Your task to perform on an android device: Go to display settings Image 0: 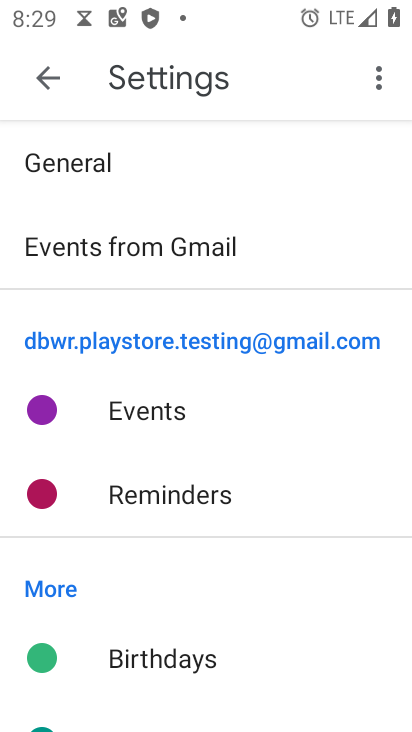
Step 0: press back button
Your task to perform on an android device: Go to display settings Image 1: 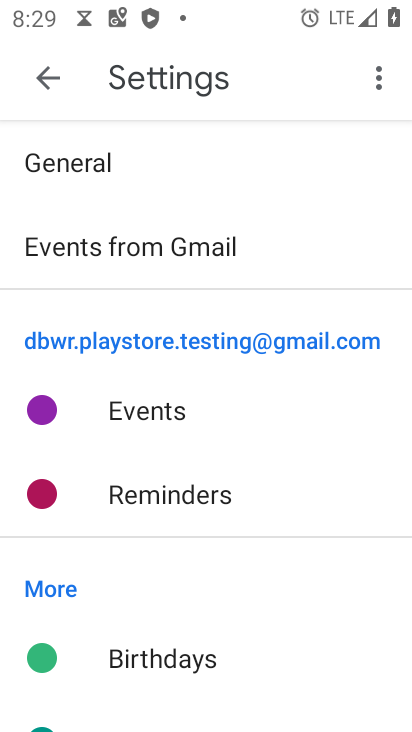
Step 1: press back button
Your task to perform on an android device: Go to display settings Image 2: 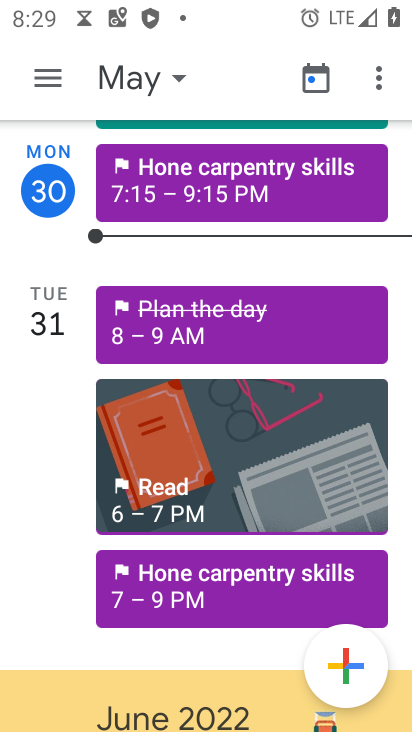
Step 2: click (173, 78)
Your task to perform on an android device: Go to display settings Image 3: 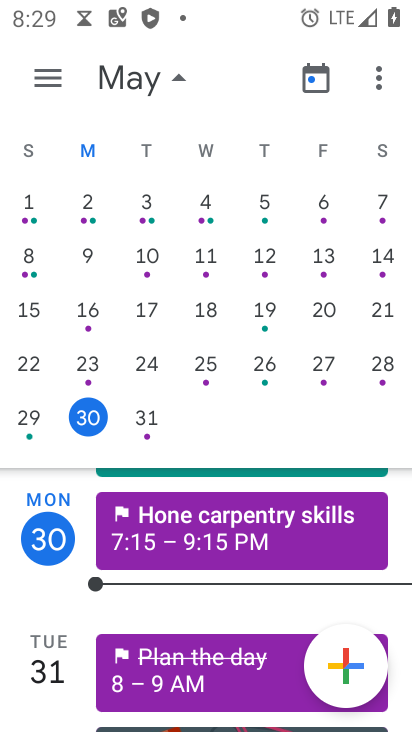
Step 3: press back button
Your task to perform on an android device: Go to display settings Image 4: 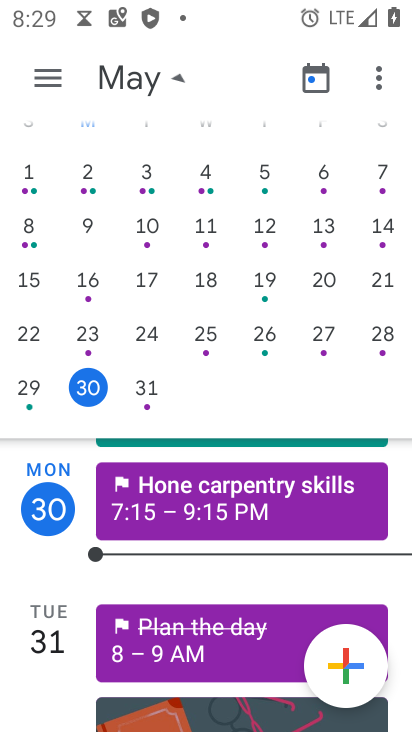
Step 4: press back button
Your task to perform on an android device: Go to display settings Image 5: 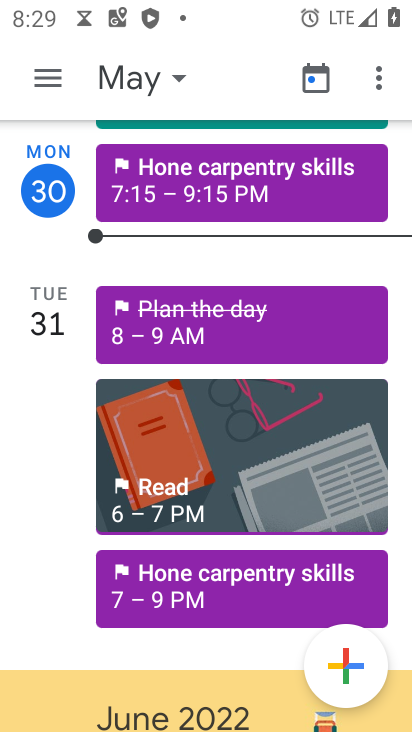
Step 5: press back button
Your task to perform on an android device: Go to display settings Image 6: 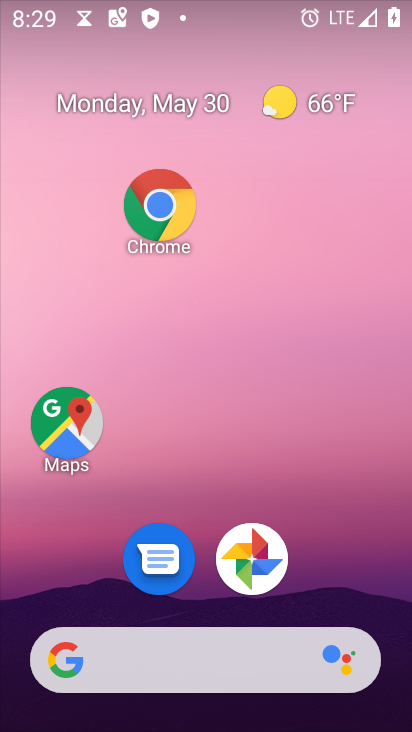
Step 6: drag from (268, 695) to (260, 85)
Your task to perform on an android device: Go to display settings Image 7: 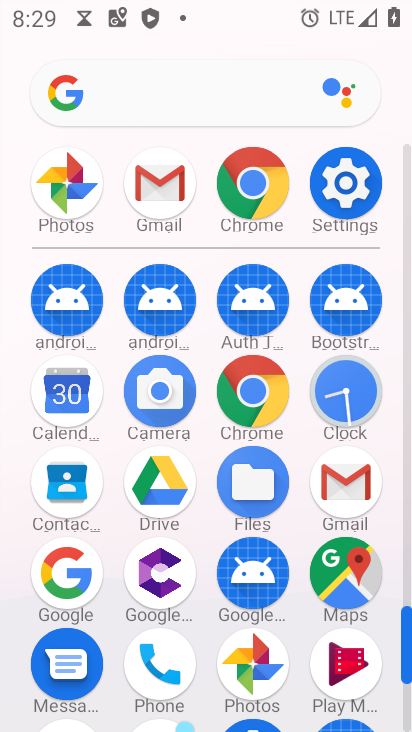
Step 7: click (359, 199)
Your task to perform on an android device: Go to display settings Image 8: 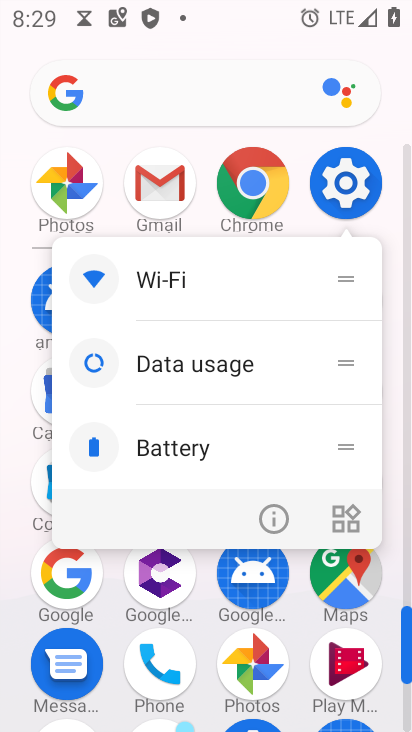
Step 8: click (360, 178)
Your task to perform on an android device: Go to display settings Image 9: 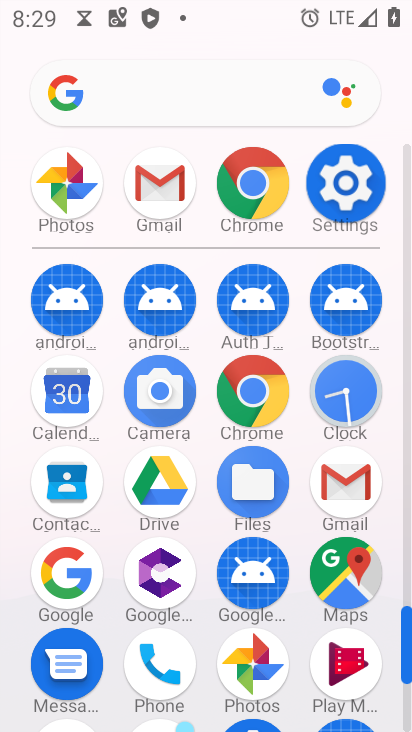
Step 9: click (353, 186)
Your task to perform on an android device: Go to display settings Image 10: 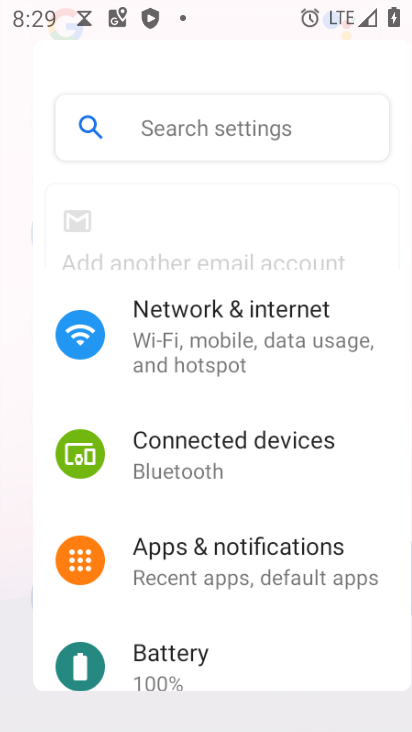
Step 10: click (350, 187)
Your task to perform on an android device: Go to display settings Image 11: 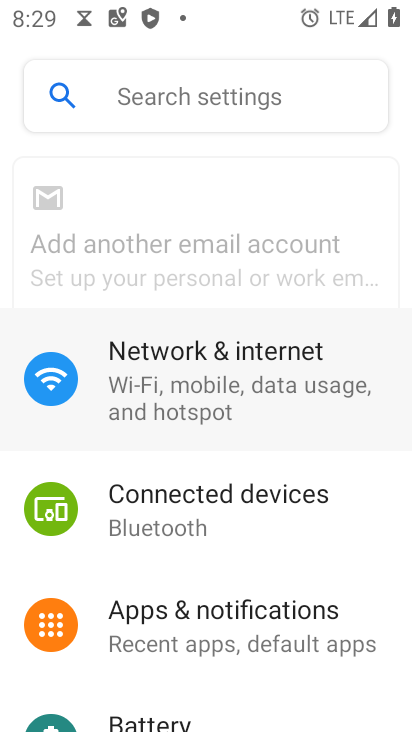
Step 11: click (350, 187)
Your task to perform on an android device: Go to display settings Image 12: 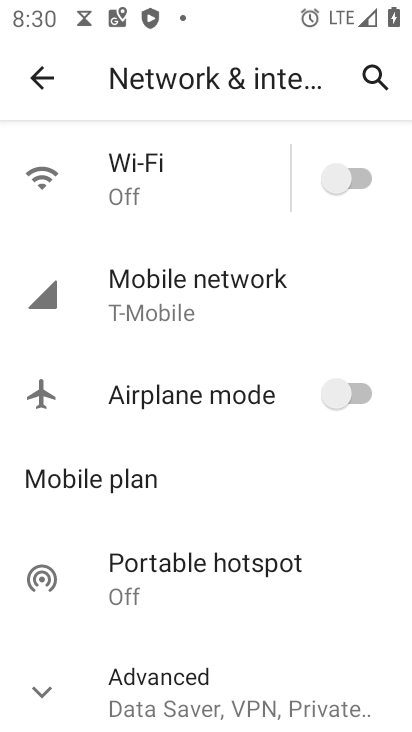
Step 12: press back button
Your task to perform on an android device: Go to display settings Image 13: 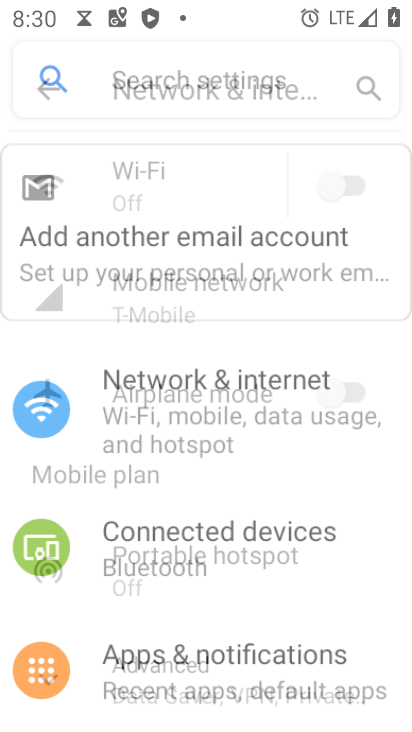
Step 13: press back button
Your task to perform on an android device: Go to display settings Image 14: 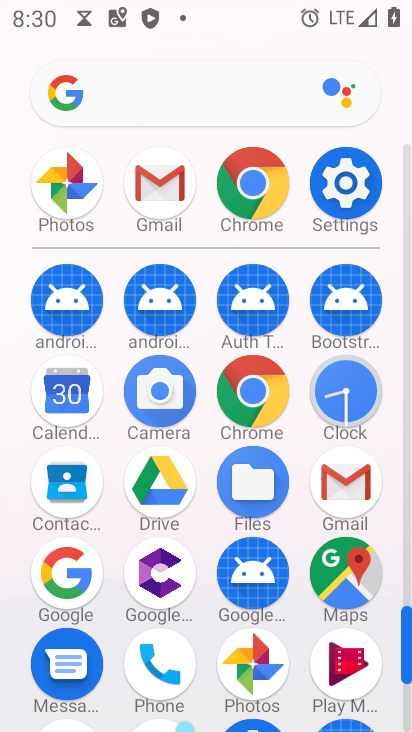
Step 14: click (323, 195)
Your task to perform on an android device: Go to display settings Image 15: 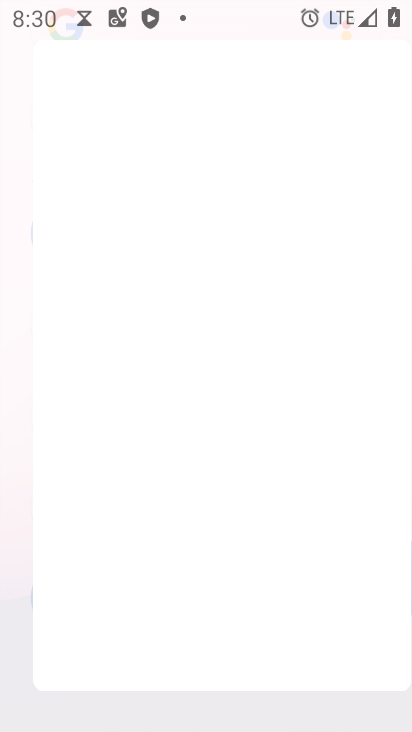
Step 15: click (333, 197)
Your task to perform on an android device: Go to display settings Image 16: 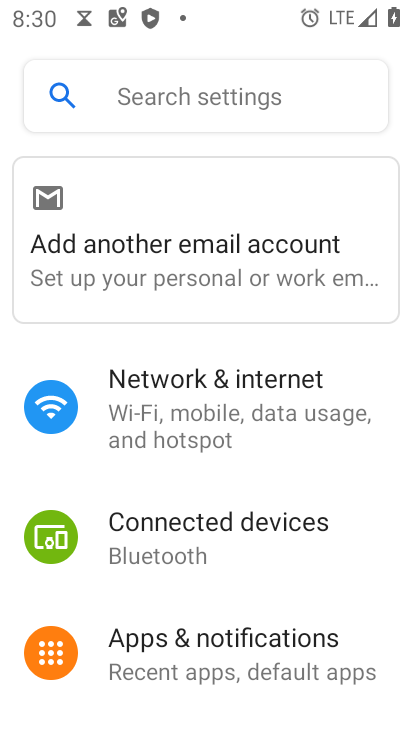
Step 16: drag from (214, 474) to (200, 320)
Your task to perform on an android device: Go to display settings Image 17: 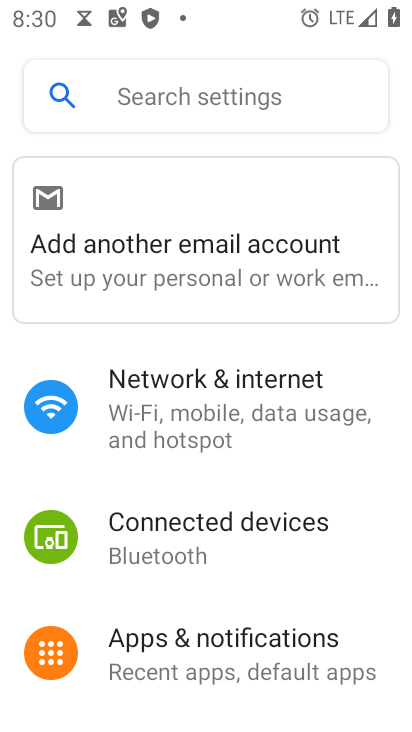
Step 17: drag from (275, 442) to (230, 219)
Your task to perform on an android device: Go to display settings Image 18: 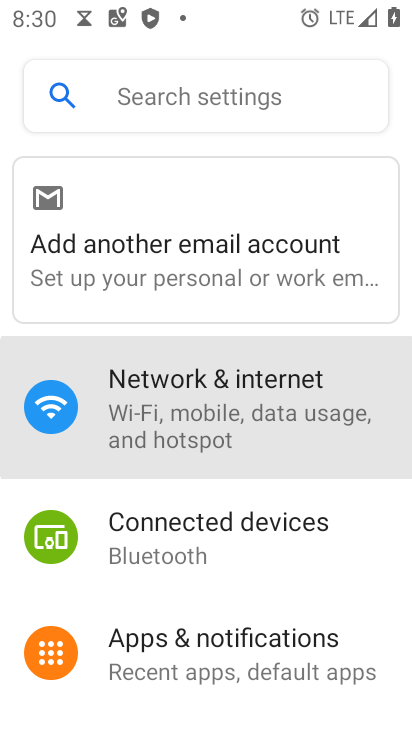
Step 18: drag from (170, 459) to (134, 247)
Your task to perform on an android device: Go to display settings Image 19: 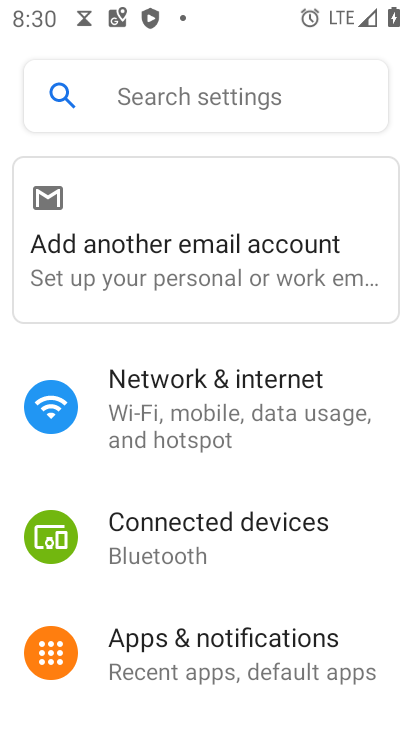
Step 19: drag from (178, 563) to (157, 240)
Your task to perform on an android device: Go to display settings Image 20: 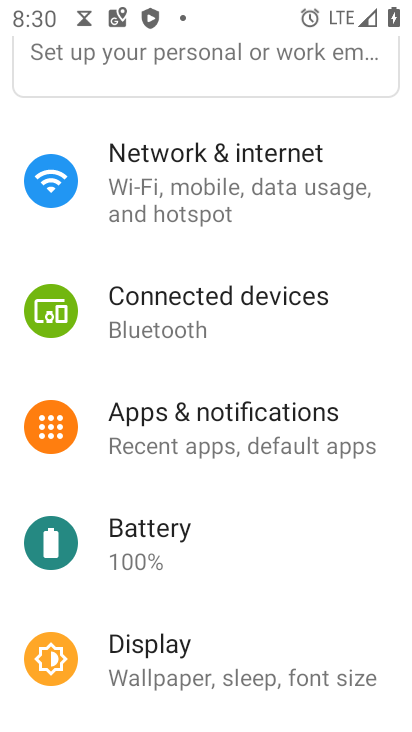
Step 20: click (169, 655)
Your task to perform on an android device: Go to display settings Image 21: 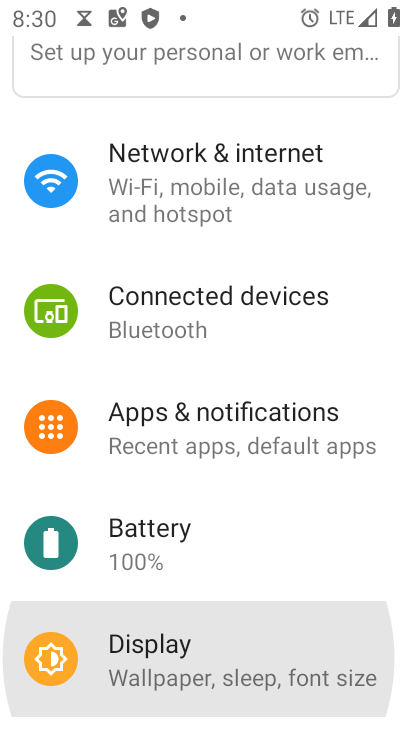
Step 21: click (168, 657)
Your task to perform on an android device: Go to display settings Image 22: 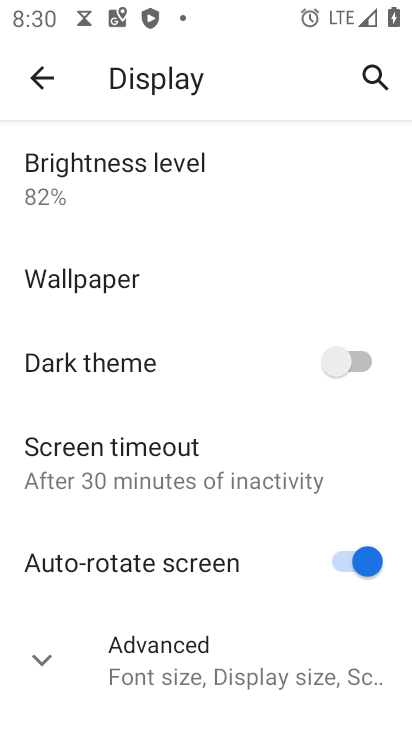
Step 22: click (170, 657)
Your task to perform on an android device: Go to display settings Image 23: 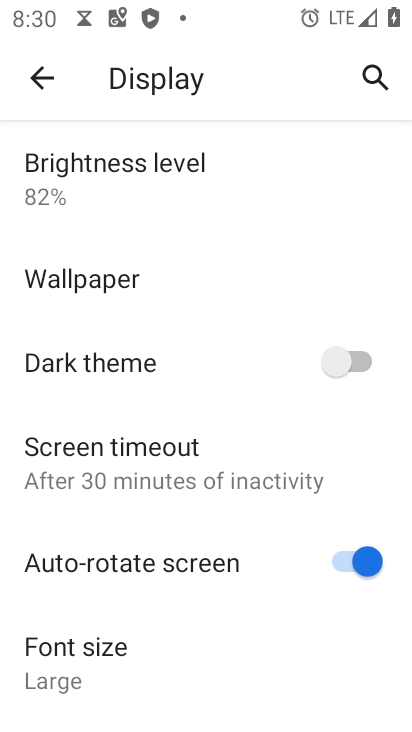
Step 23: task complete